Your task to perform on an android device: open app "Google Docs" Image 0: 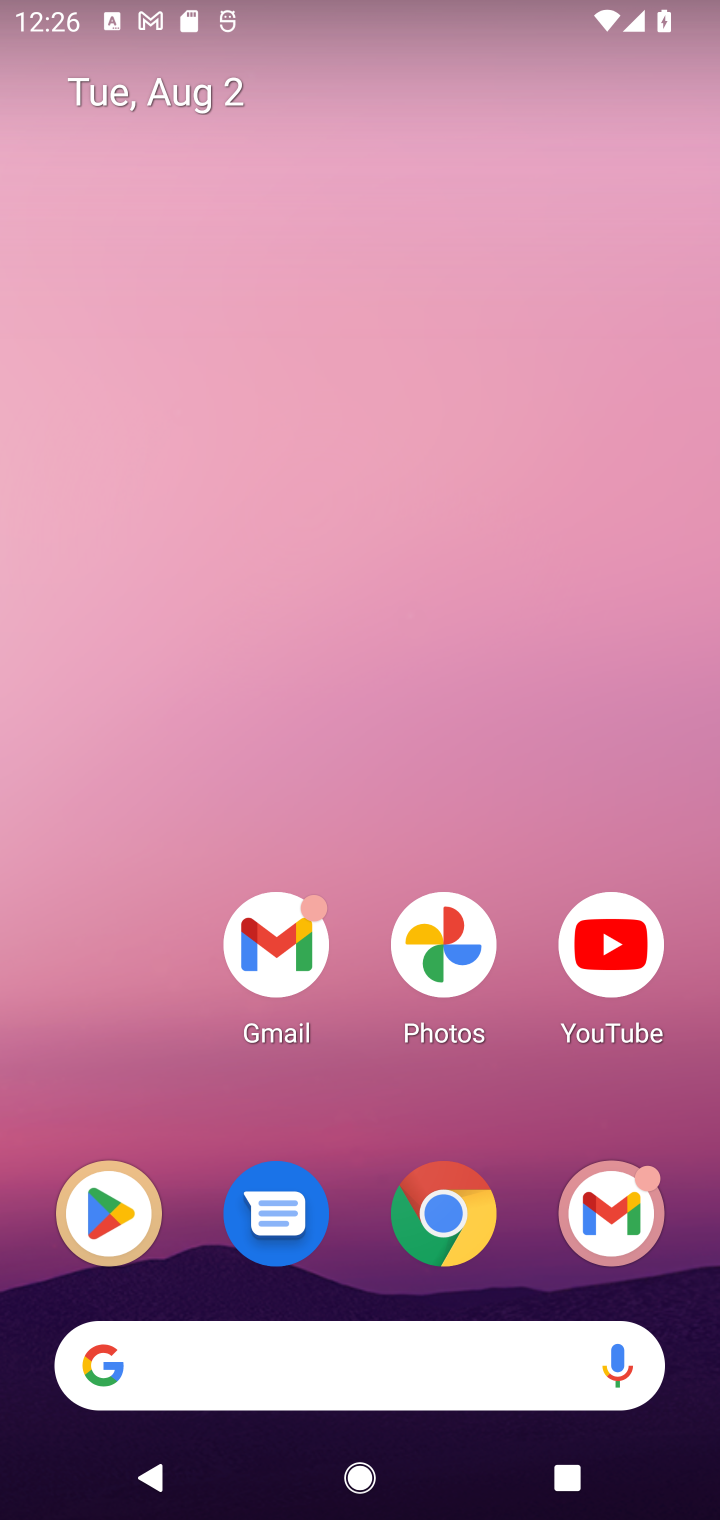
Step 0: click (131, 1223)
Your task to perform on an android device: open app "Google Docs" Image 1: 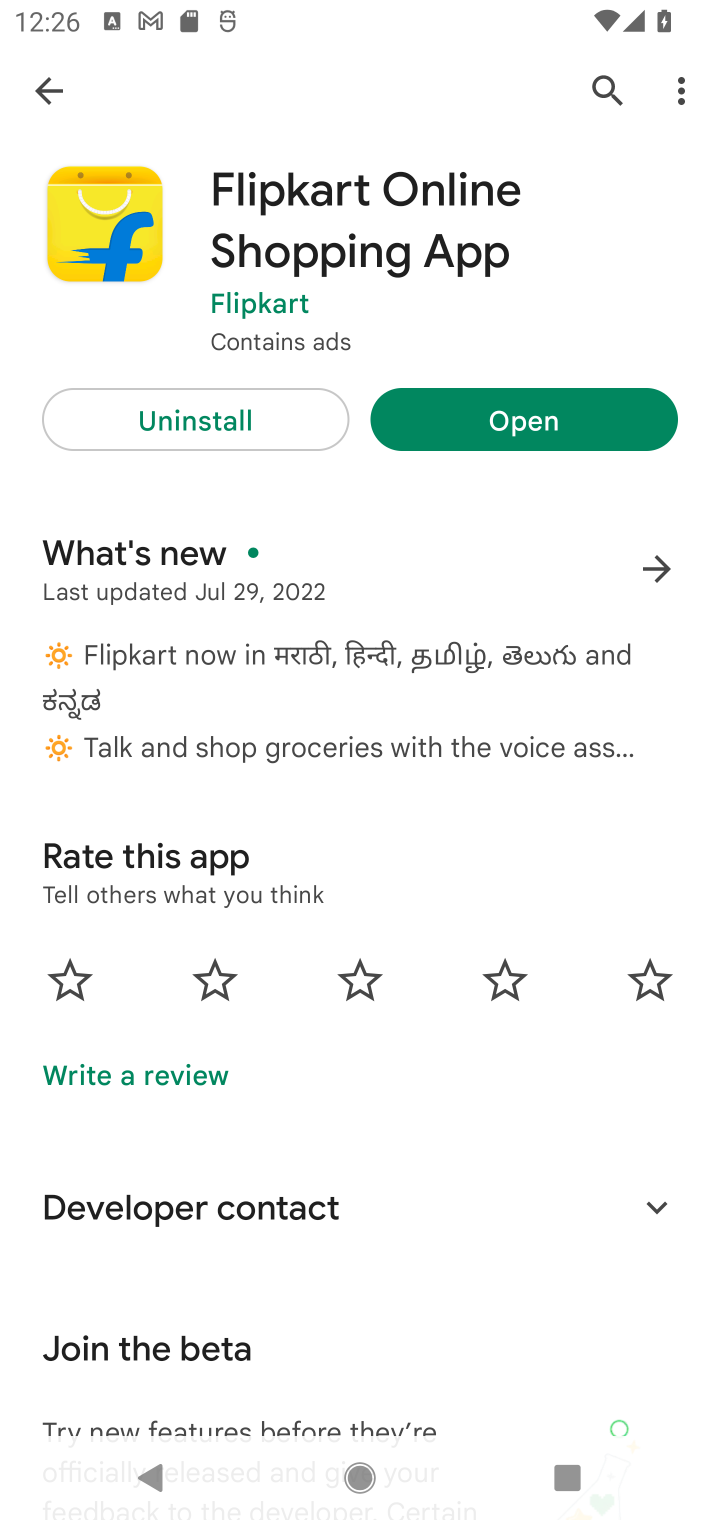
Step 1: click (46, 106)
Your task to perform on an android device: open app "Google Docs" Image 2: 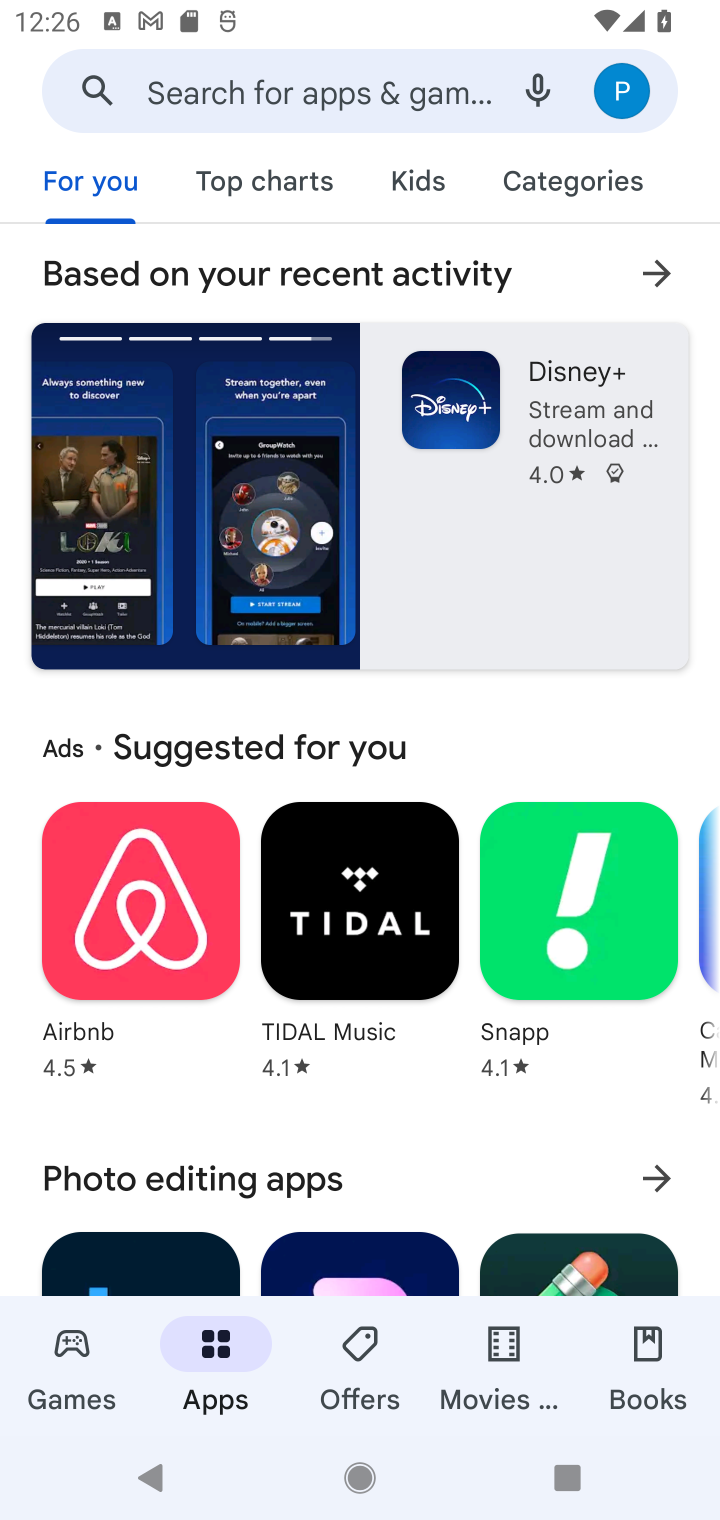
Step 2: click (294, 94)
Your task to perform on an android device: open app "Google Docs" Image 3: 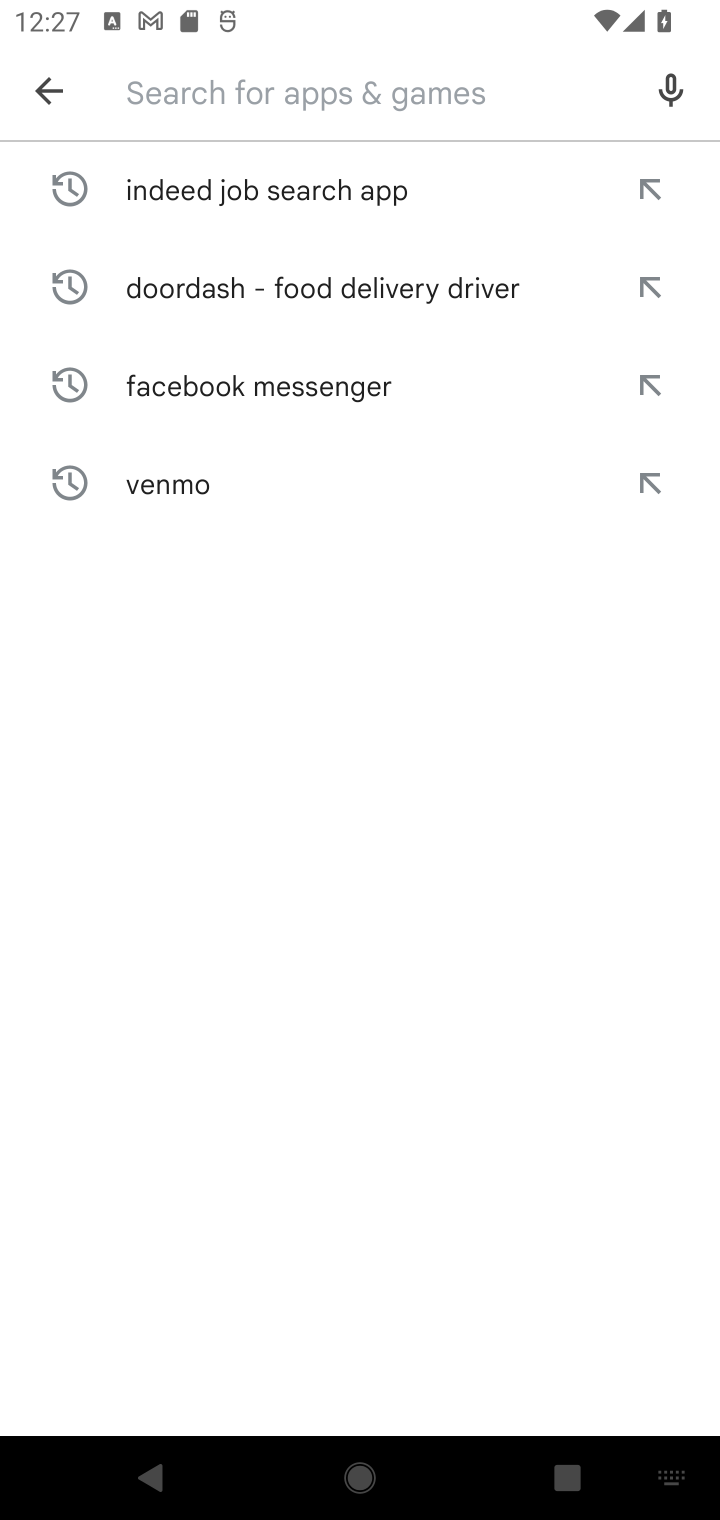
Step 3: type "Google Docs"
Your task to perform on an android device: open app "Google Docs" Image 4: 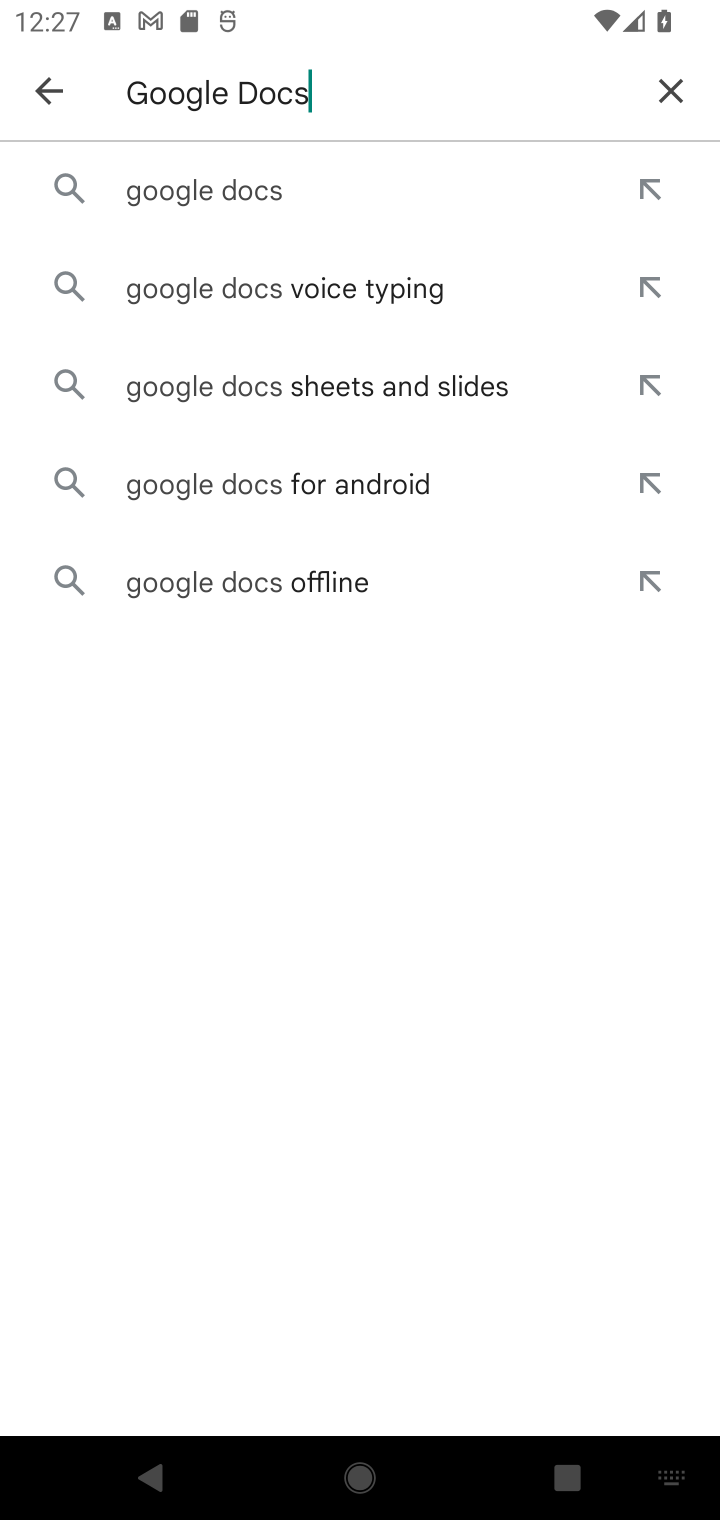
Step 4: click (214, 193)
Your task to perform on an android device: open app "Google Docs" Image 5: 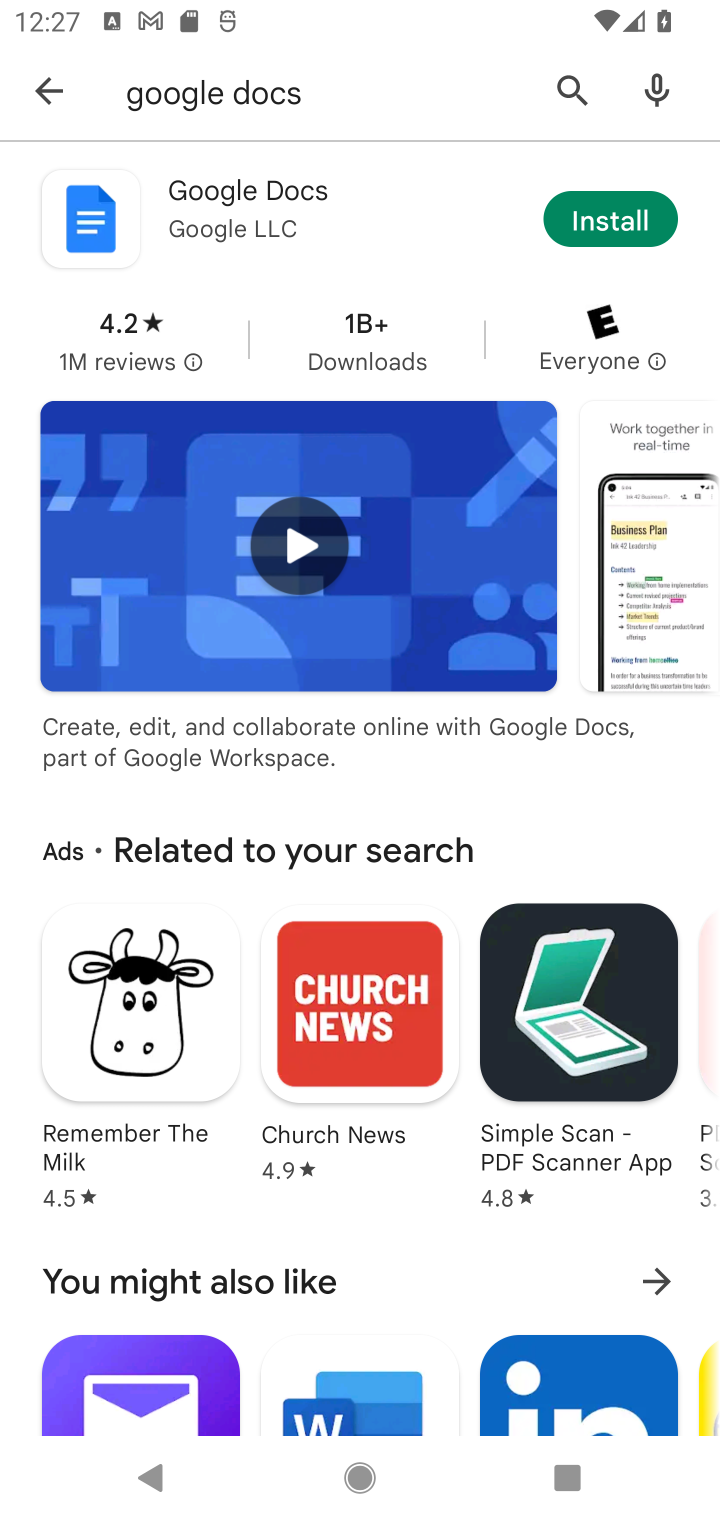
Step 5: click (602, 212)
Your task to perform on an android device: open app "Google Docs" Image 6: 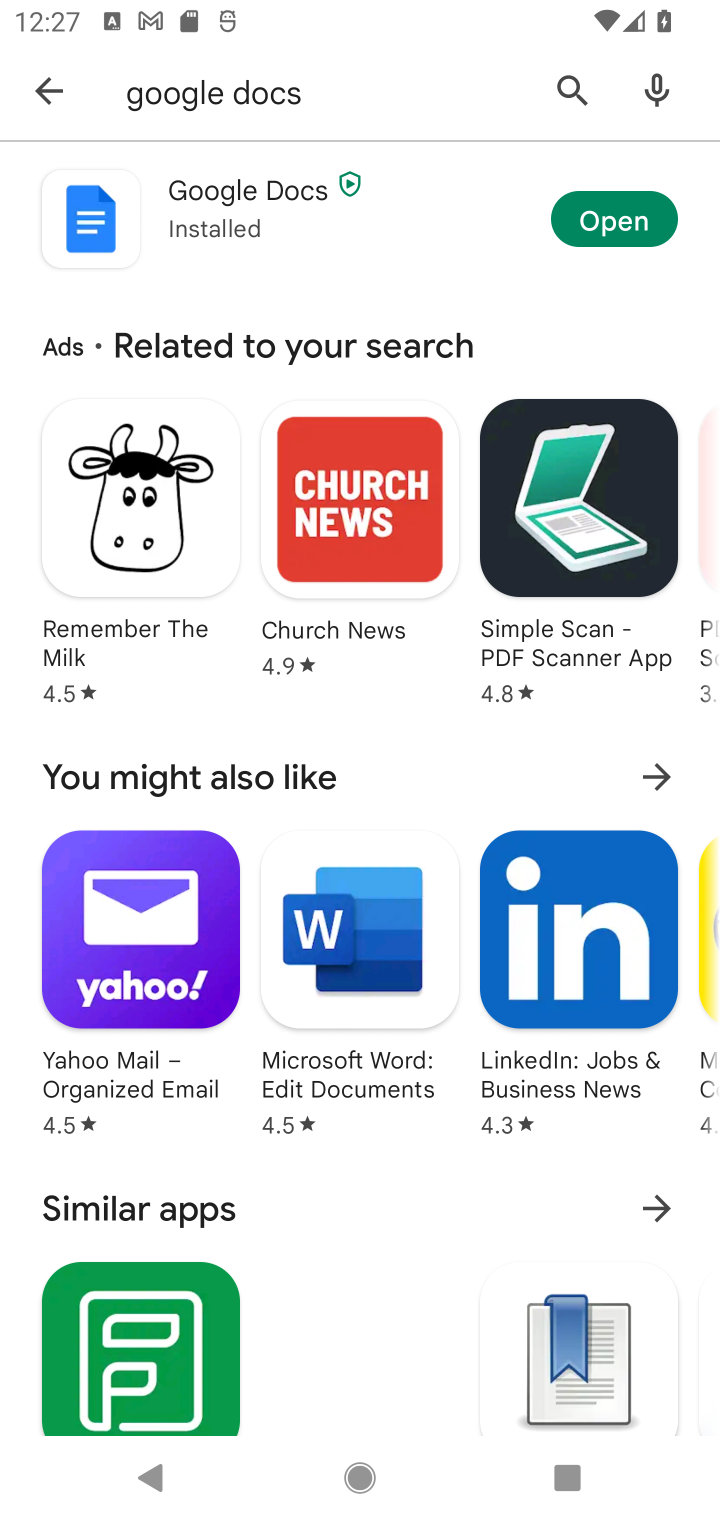
Step 6: click (593, 203)
Your task to perform on an android device: open app "Google Docs" Image 7: 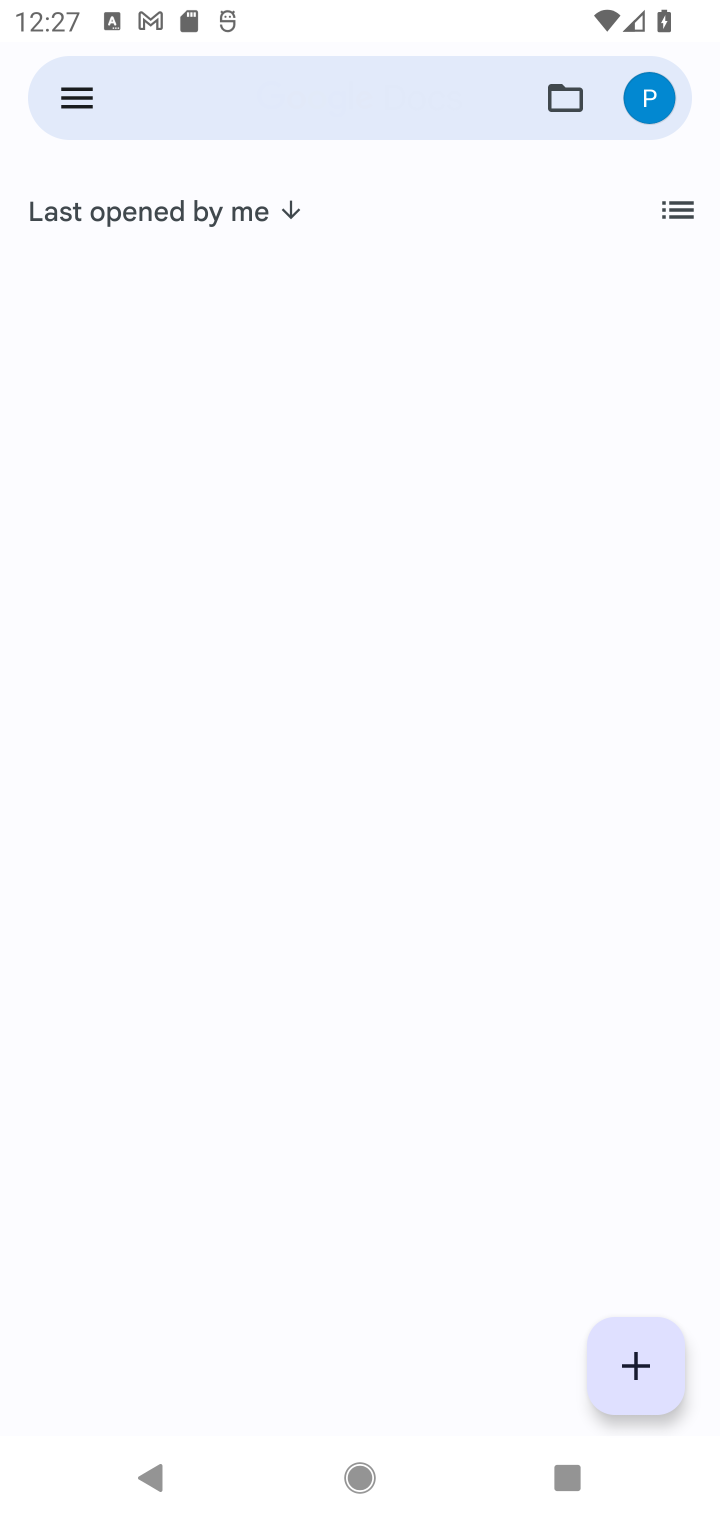
Step 7: task complete